Your task to perform on an android device: add a contact in the contacts app Image 0: 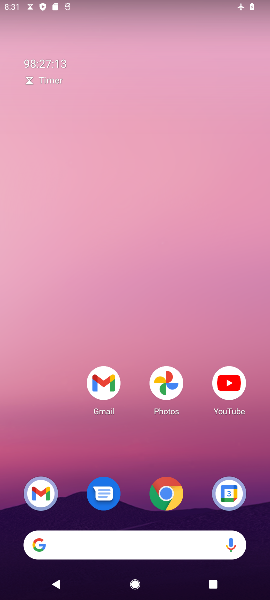
Step 0: drag from (97, 486) to (93, 117)
Your task to perform on an android device: add a contact in the contacts app Image 1: 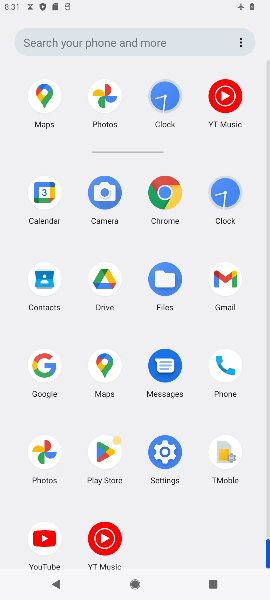
Step 1: click (227, 359)
Your task to perform on an android device: add a contact in the contacts app Image 2: 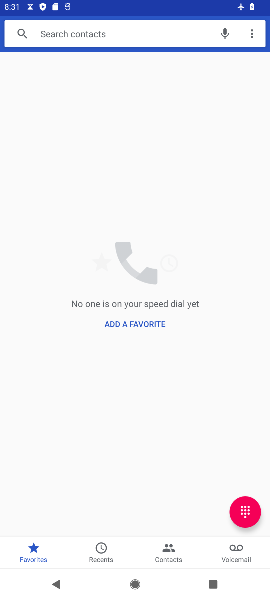
Step 2: click (136, 323)
Your task to perform on an android device: add a contact in the contacts app Image 3: 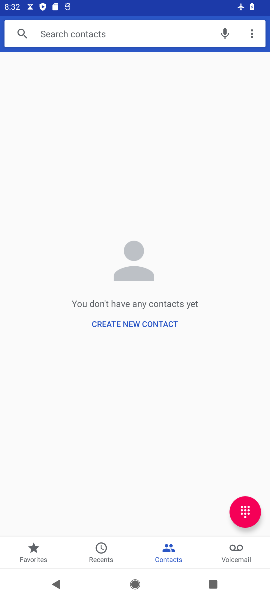
Step 3: click (136, 323)
Your task to perform on an android device: add a contact in the contacts app Image 4: 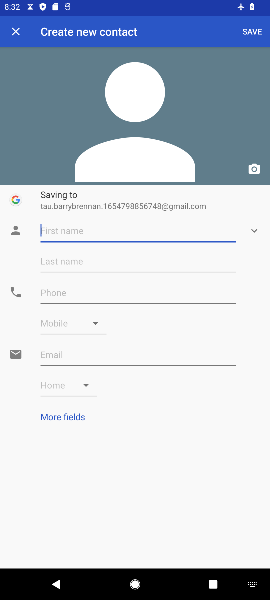
Step 4: click (102, 241)
Your task to perform on an android device: add a contact in the contacts app Image 5: 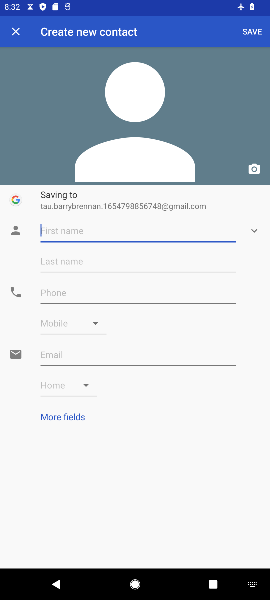
Step 5: type "jnjnjnjnjnjj "
Your task to perform on an android device: add a contact in the contacts app Image 6: 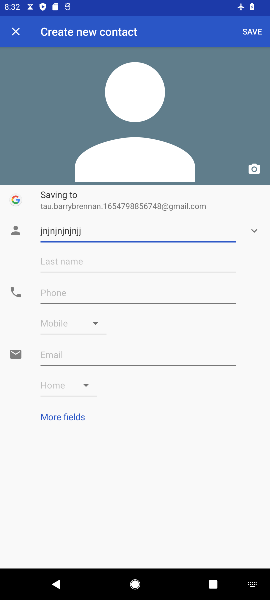
Step 6: click (92, 284)
Your task to perform on an android device: add a contact in the contacts app Image 7: 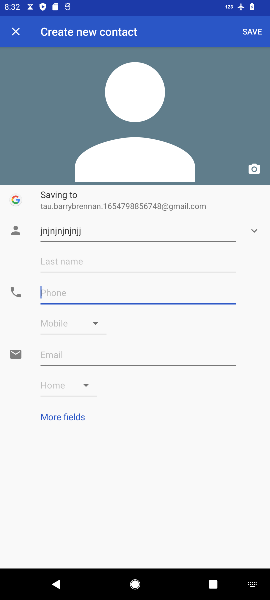
Step 7: type "87878787878787 "
Your task to perform on an android device: add a contact in the contacts app Image 8: 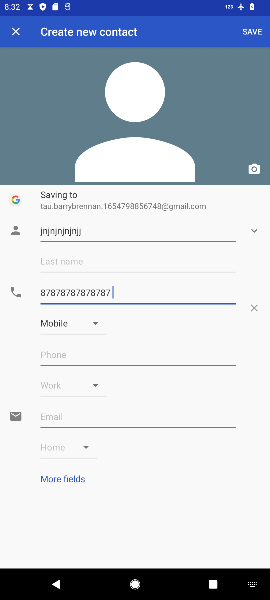
Step 8: click (245, 29)
Your task to perform on an android device: add a contact in the contacts app Image 9: 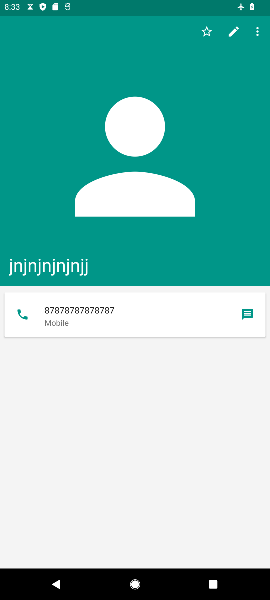
Step 9: task complete